Your task to perform on an android device: Open location settings Image 0: 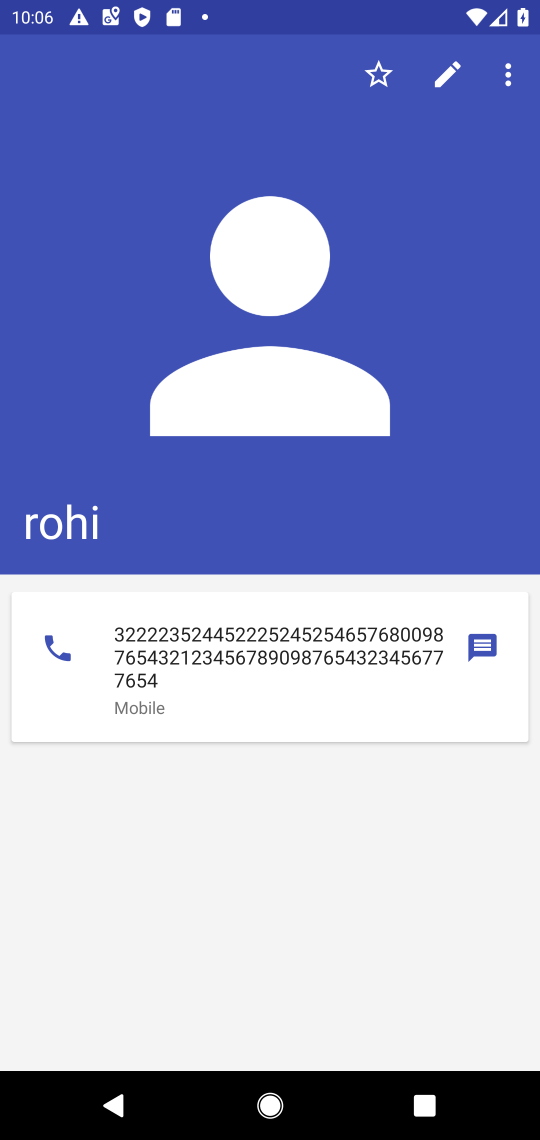
Step 0: press home button
Your task to perform on an android device: Open location settings Image 1: 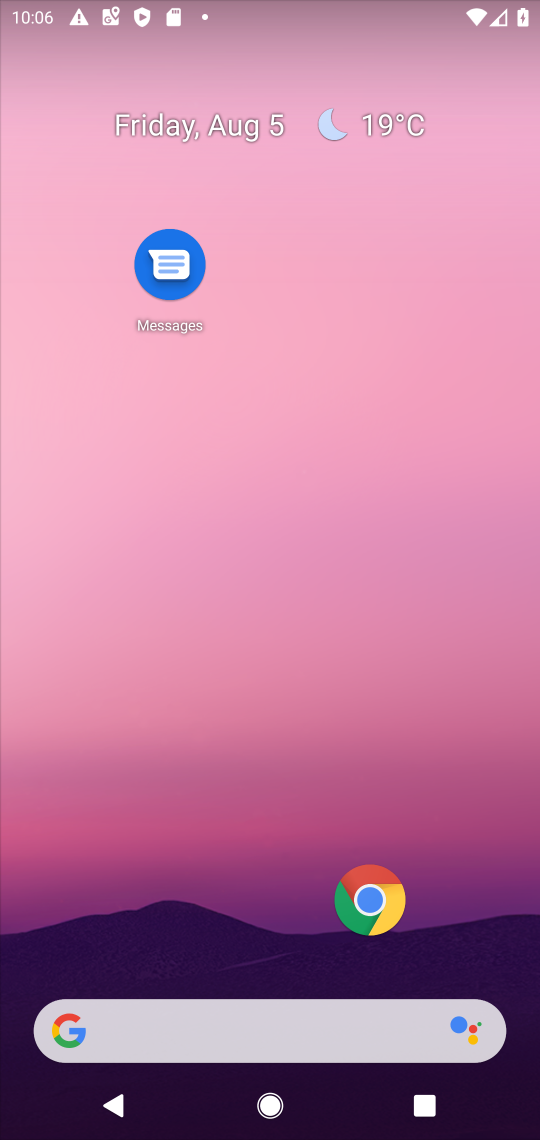
Step 1: drag from (209, 978) to (363, 0)
Your task to perform on an android device: Open location settings Image 2: 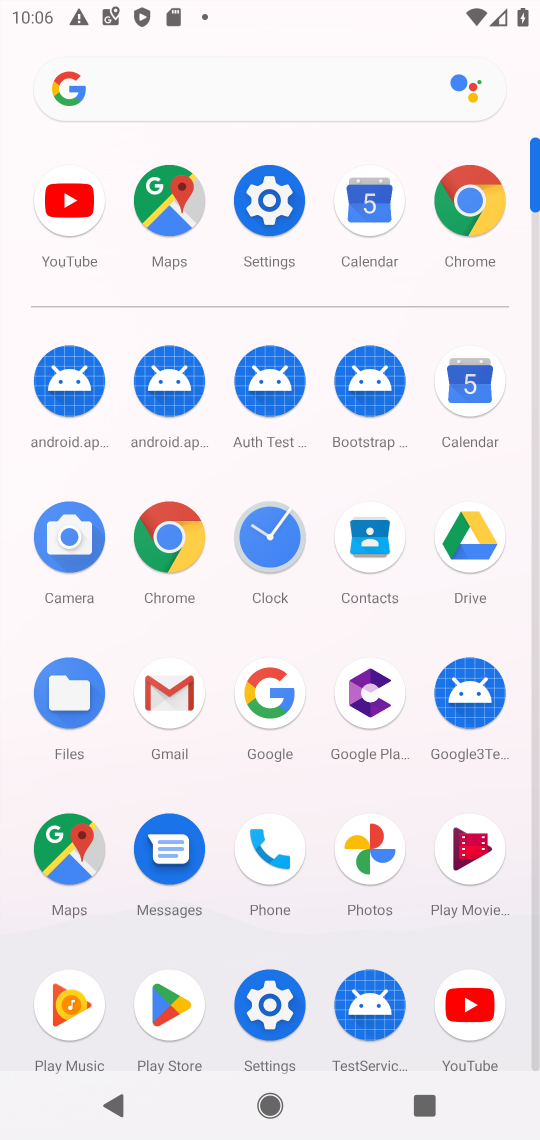
Step 2: click (271, 1001)
Your task to perform on an android device: Open location settings Image 3: 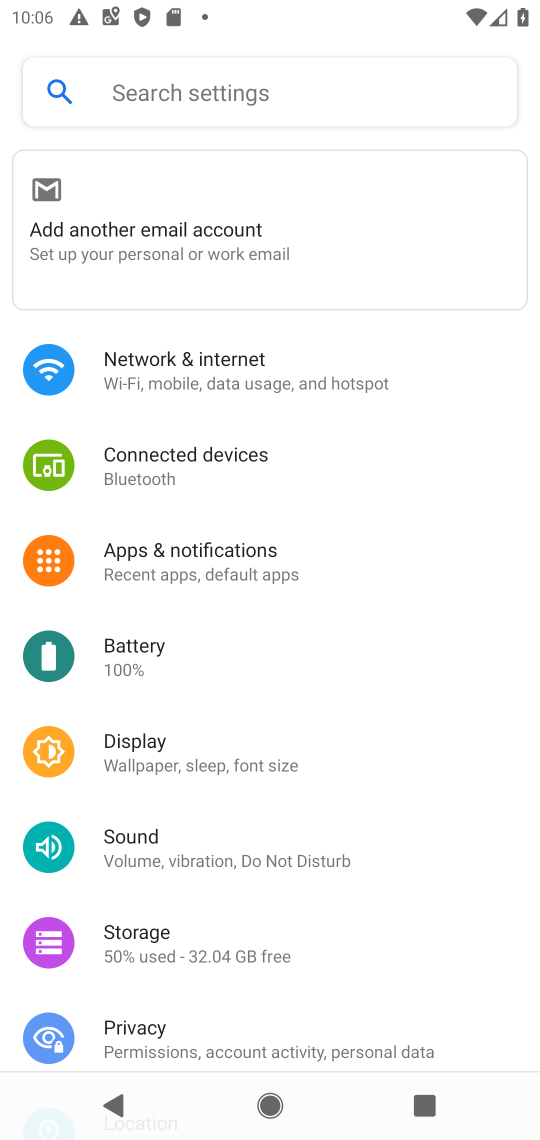
Step 3: drag from (188, 1011) to (217, 435)
Your task to perform on an android device: Open location settings Image 4: 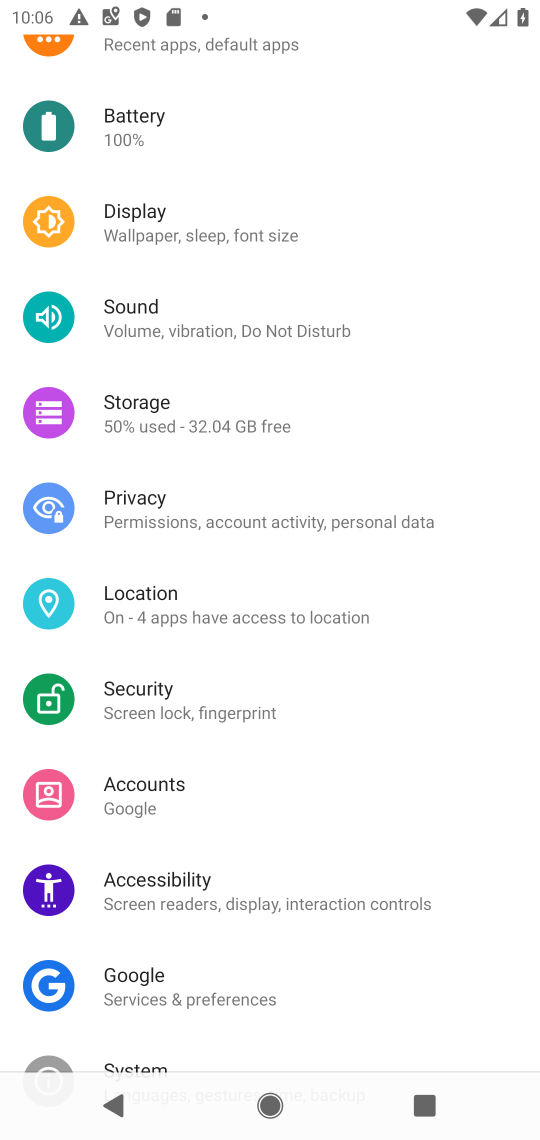
Step 4: click (171, 597)
Your task to perform on an android device: Open location settings Image 5: 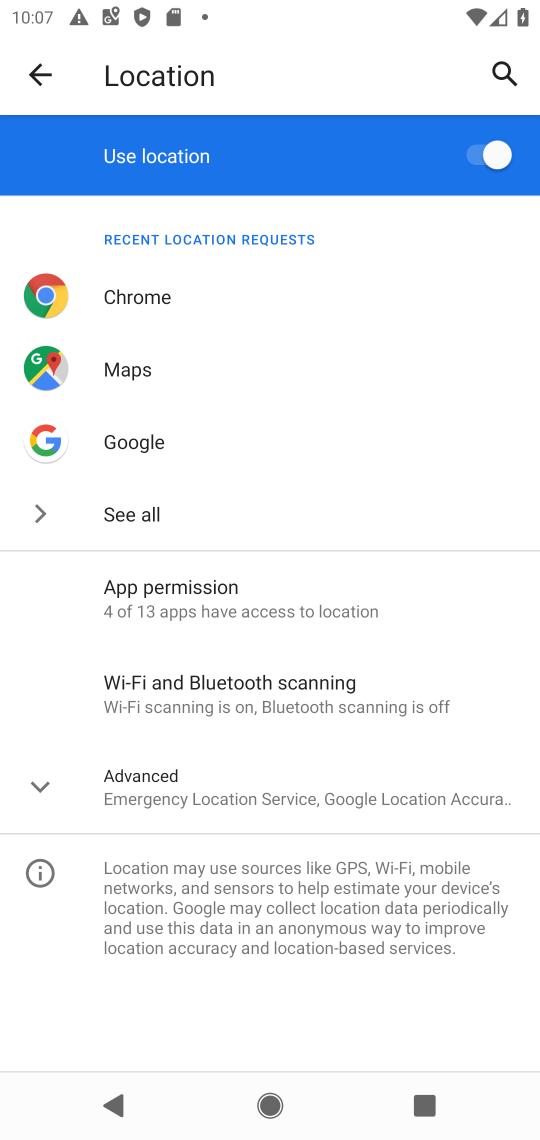
Step 5: task complete